Your task to perform on an android device: change the clock display to analog Image 0: 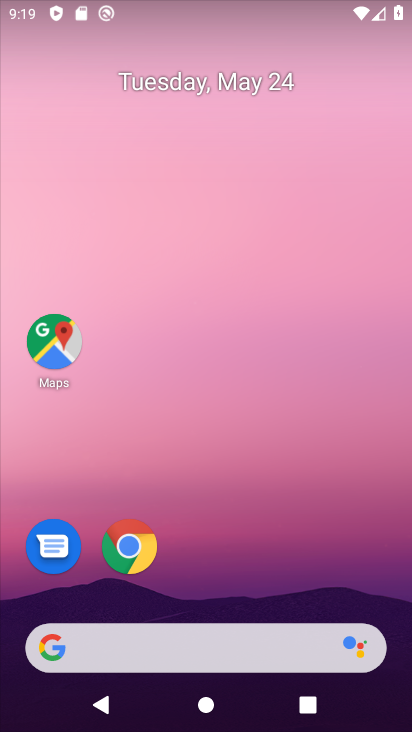
Step 0: drag from (236, 567) to (235, 74)
Your task to perform on an android device: change the clock display to analog Image 1: 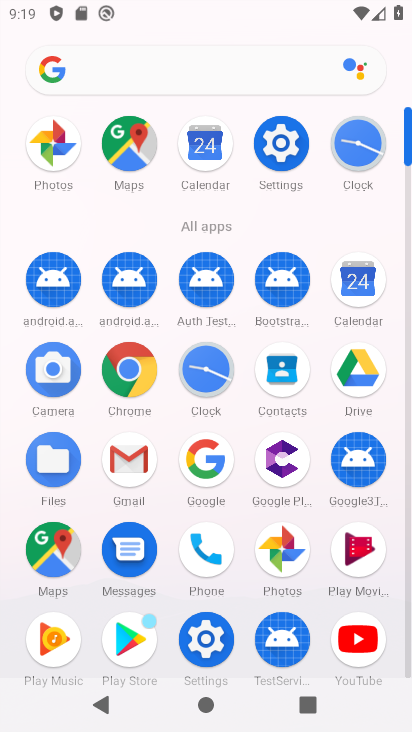
Step 1: click (206, 362)
Your task to perform on an android device: change the clock display to analog Image 2: 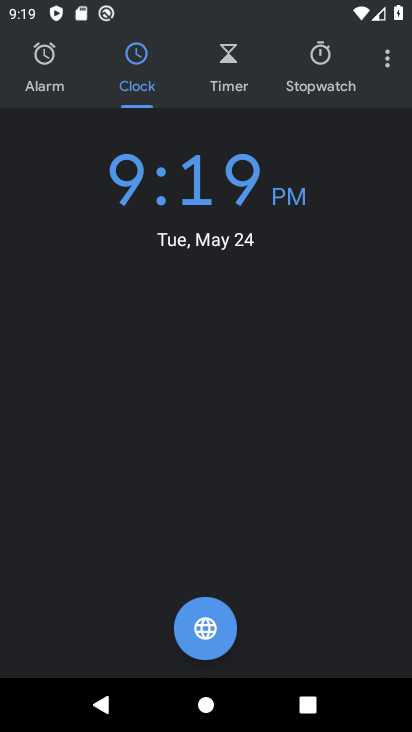
Step 2: click (389, 53)
Your task to perform on an android device: change the clock display to analog Image 3: 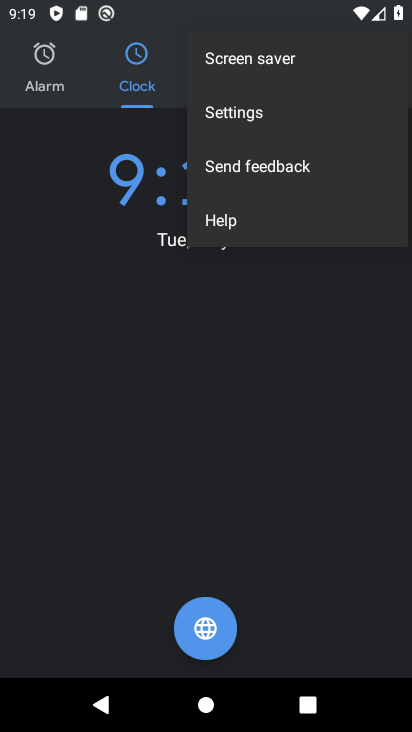
Step 3: click (248, 110)
Your task to perform on an android device: change the clock display to analog Image 4: 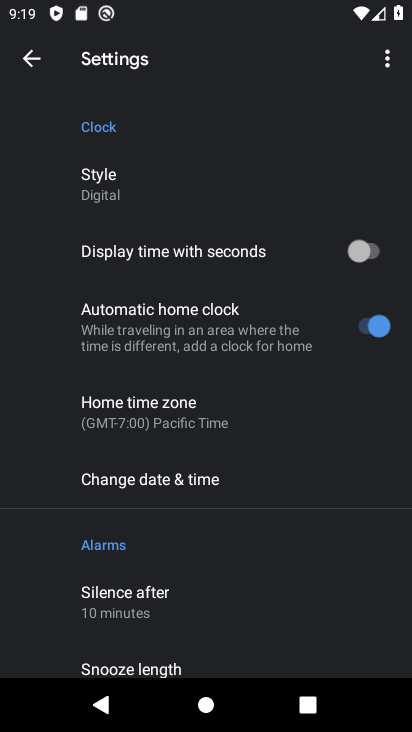
Step 4: click (103, 180)
Your task to perform on an android device: change the clock display to analog Image 5: 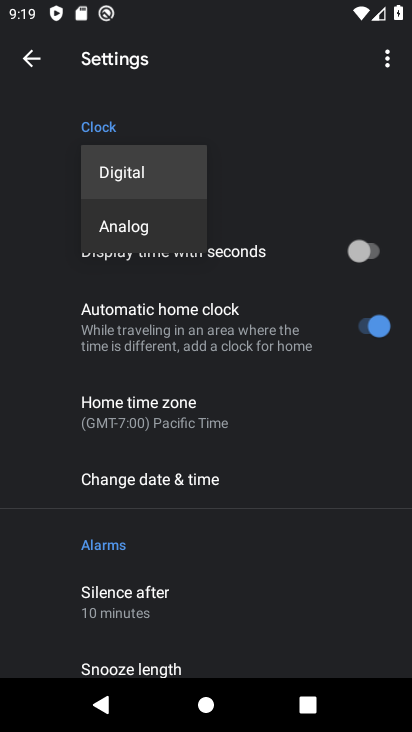
Step 5: click (120, 221)
Your task to perform on an android device: change the clock display to analog Image 6: 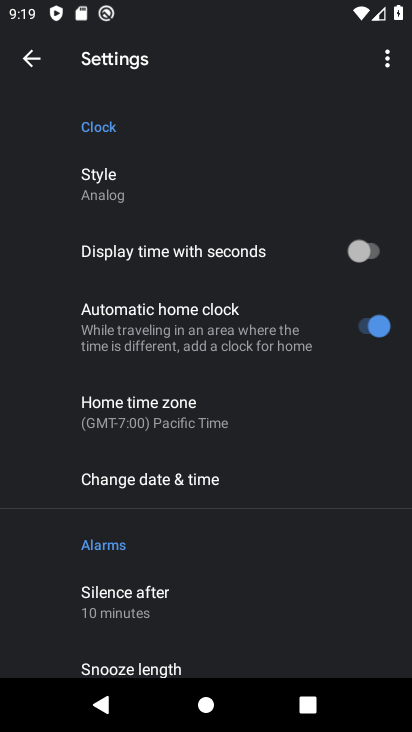
Step 6: task complete